Your task to perform on an android device: turn on data saver in the chrome app Image 0: 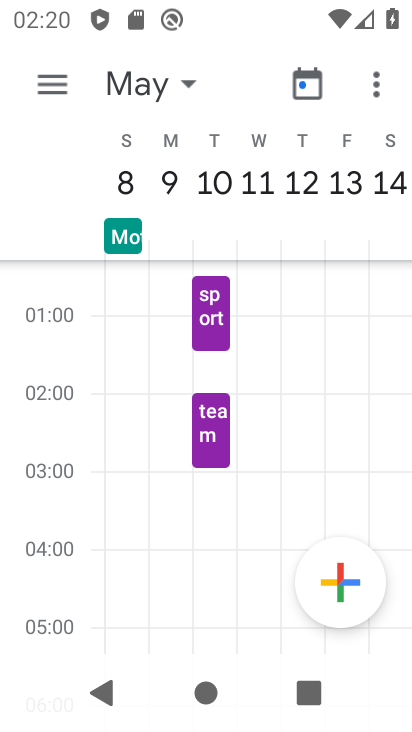
Step 0: press home button
Your task to perform on an android device: turn on data saver in the chrome app Image 1: 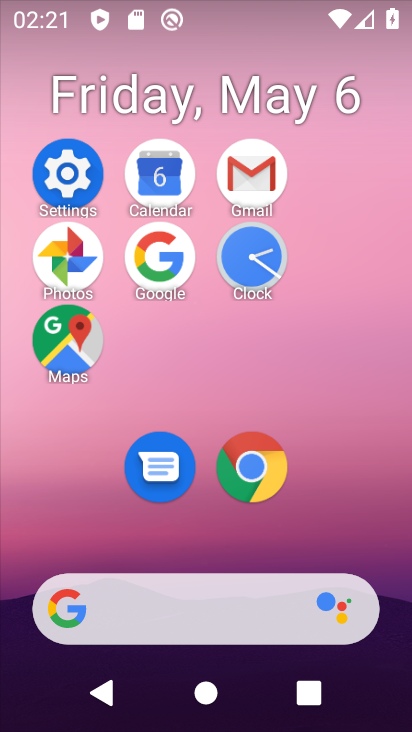
Step 1: click (250, 472)
Your task to perform on an android device: turn on data saver in the chrome app Image 2: 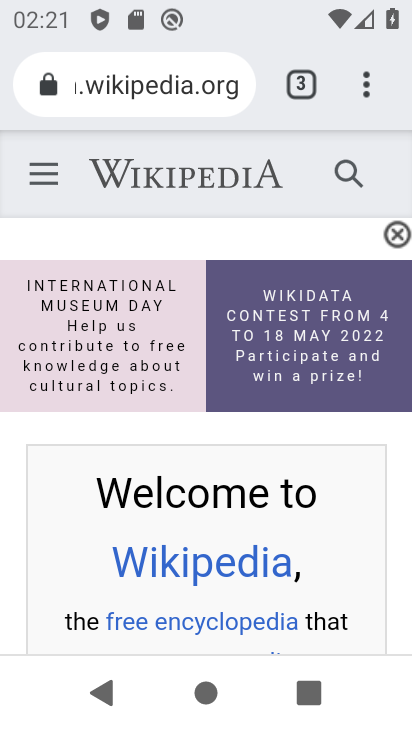
Step 2: click (369, 75)
Your task to perform on an android device: turn on data saver in the chrome app Image 3: 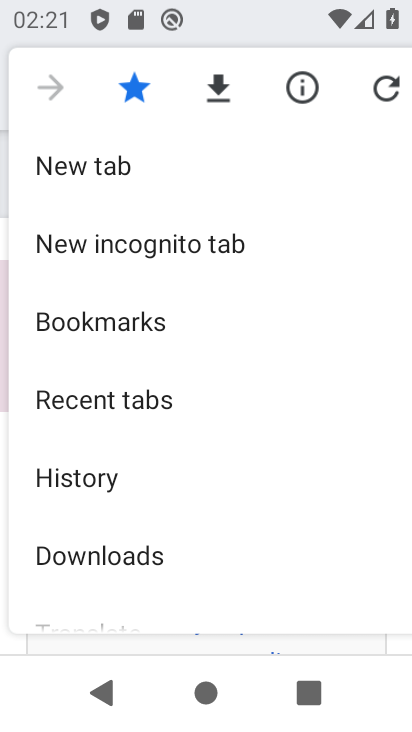
Step 3: drag from (268, 475) to (287, 116)
Your task to perform on an android device: turn on data saver in the chrome app Image 4: 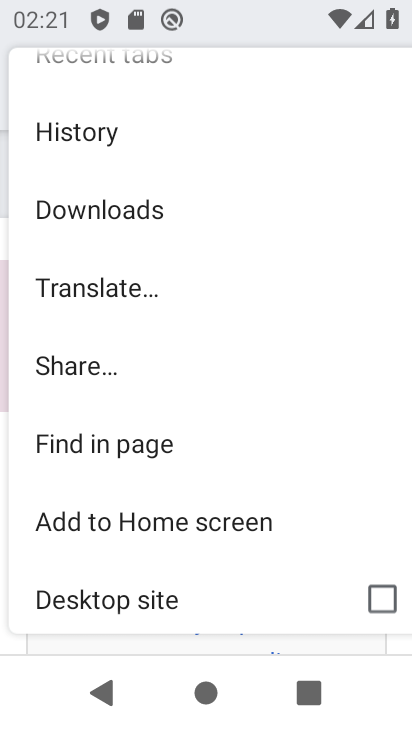
Step 4: drag from (236, 399) to (269, 169)
Your task to perform on an android device: turn on data saver in the chrome app Image 5: 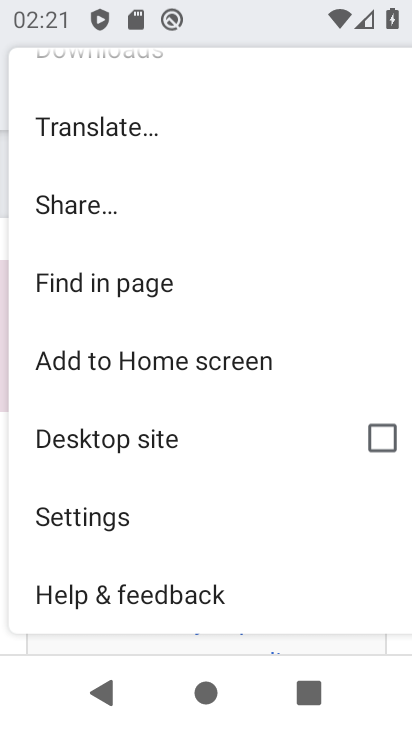
Step 5: click (146, 504)
Your task to perform on an android device: turn on data saver in the chrome app Image 6: 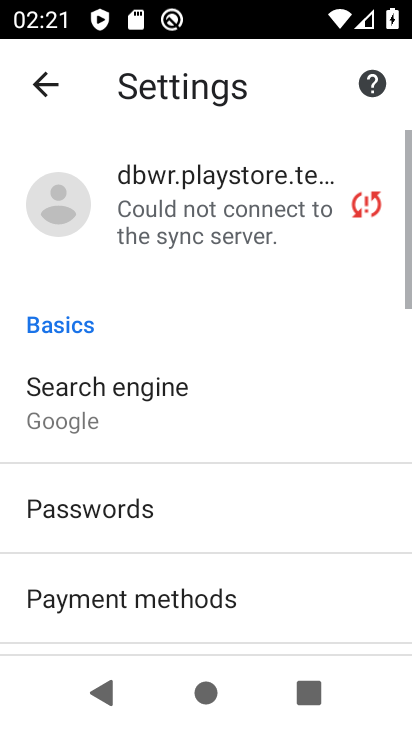
Step 6: drag from (146, 504) to (180, 134)
Your task to perform on an android device: turn on data saver in the chrome app Image 7: 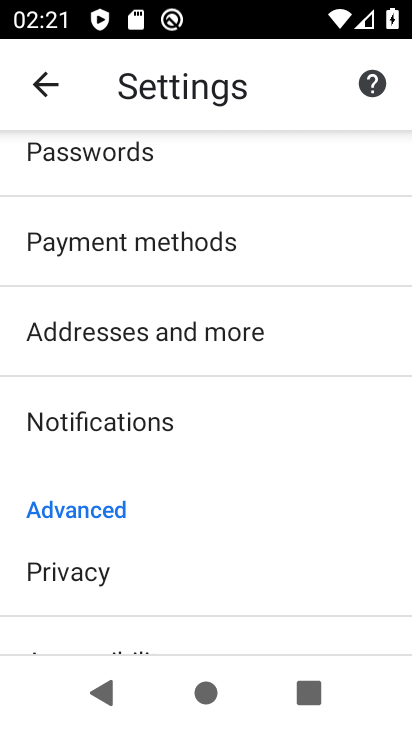
Step 7: drag from (172, 519) to (189, 177)
Your task to perform on an android device: turn on data saver in the chrome app Image 8: 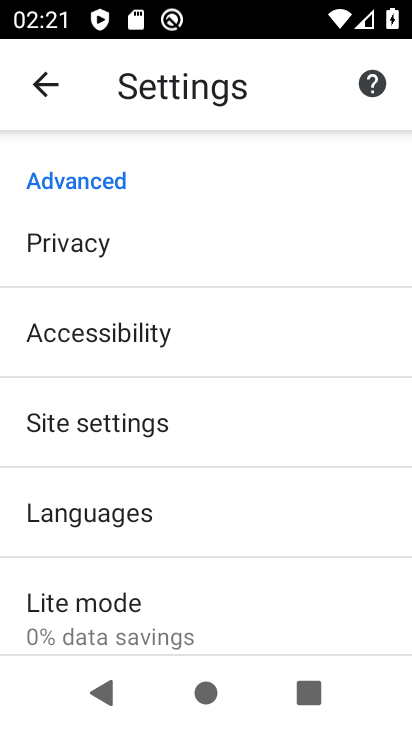
Step 8: click (177, 604)
Your task to perform on an android device: turn on data saver in the chrome app Image 9: 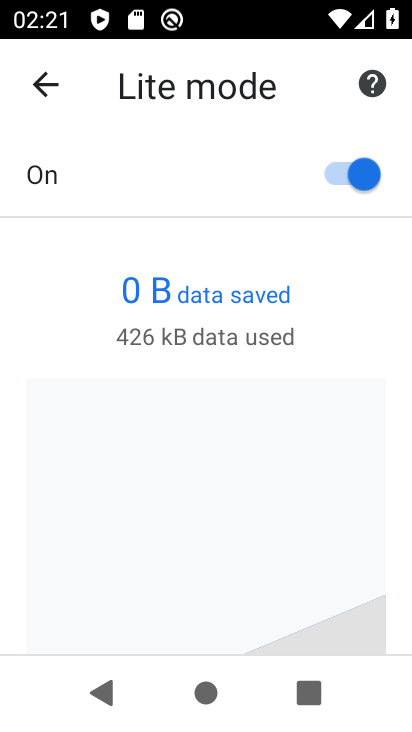
Step 9: task complete